Your task to perform on an android device: turn on airplane mode Image 0: 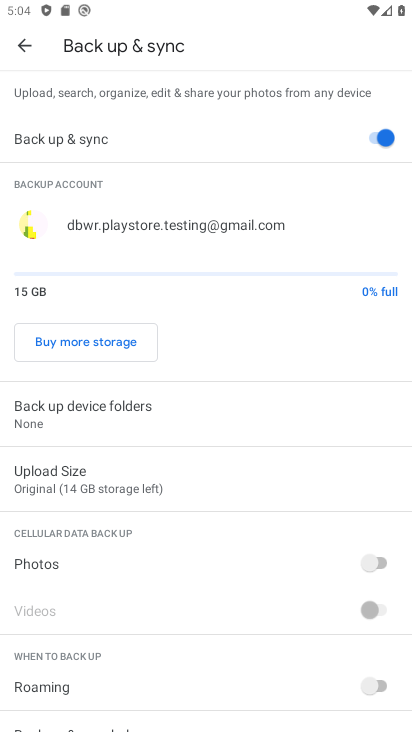
Step 0: press home button
Your task to perform on an android device: turn on airplane mode Image 1: 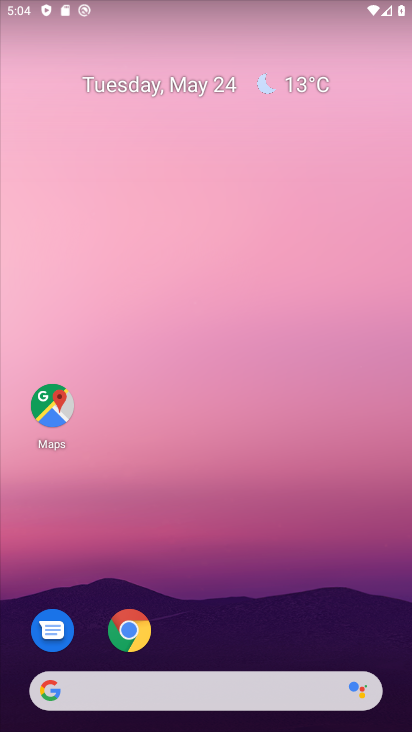
Step 1: click (131, 632)
Your task to perform on an android device: turn on airplane mode Image 2: 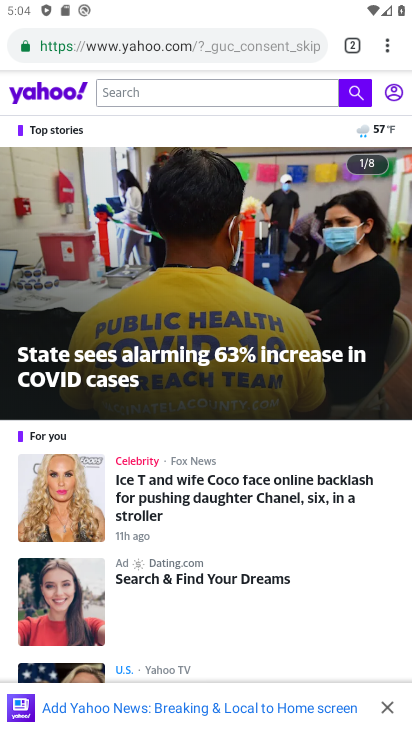
Step 2: press home button
Your task to perform on an android device: turn on airplane mode Image 3: 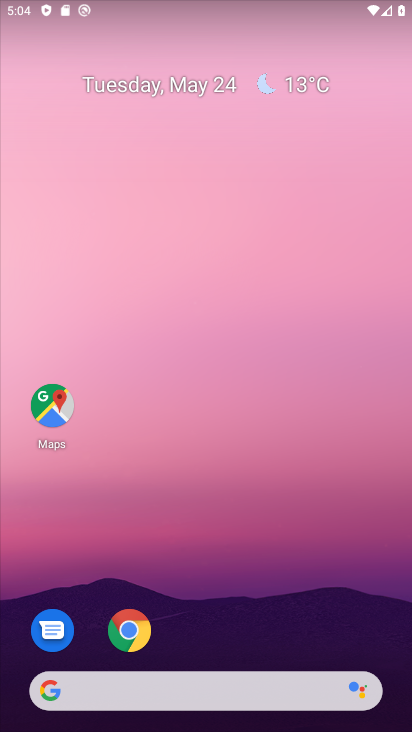
Step 3: drag from (220, 370) to (190, 2)
Your task to perform on an android device: turn on airplane mode Image 4: 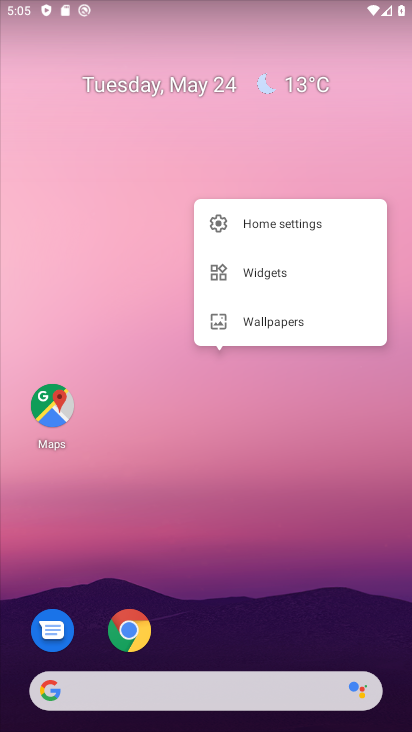
Step 4: click (241, 451)
Your task to perform on an android device: turn on airplane mode Image 5: 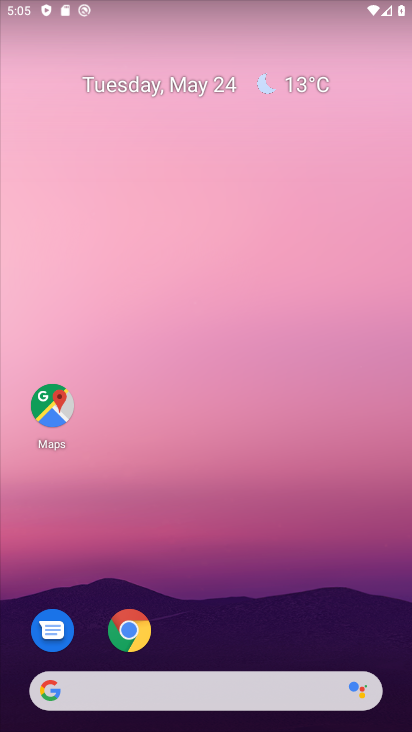
Step 5: click (200, 618)
Your task to perform on an android device: turn on airplane mode Image 6: 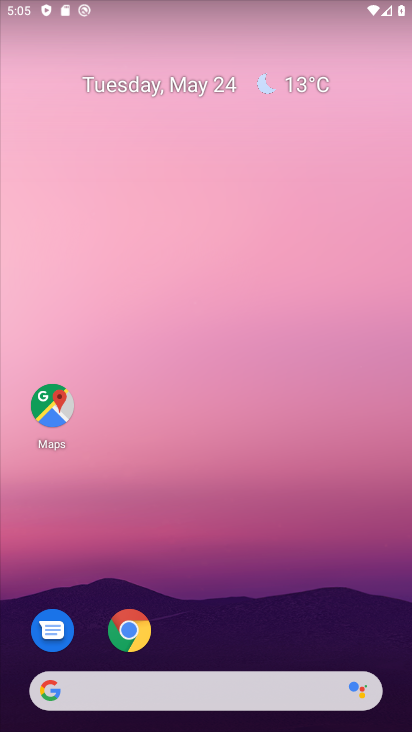
Step 6: click (271, 561)
Your task to perform on an android device: turn on airplane mode Image 7: 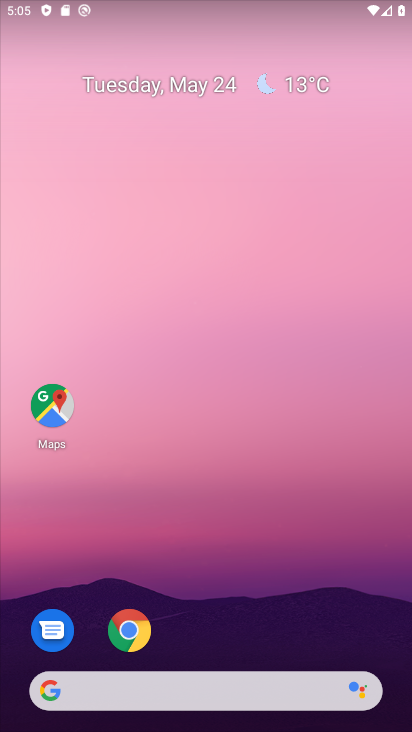
Step 7: click (271, 596)
Your task to perform on an android device: turn on airplane mode Image 8: 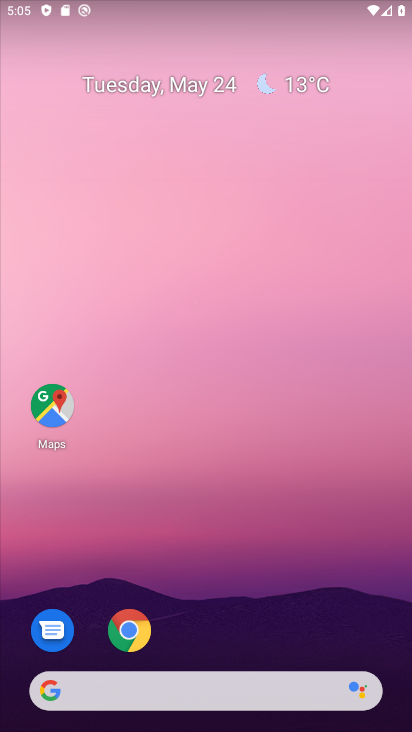
Step 8: click (209, 506)
Your task to perform on an android device: turn on airplane mode Image 9: 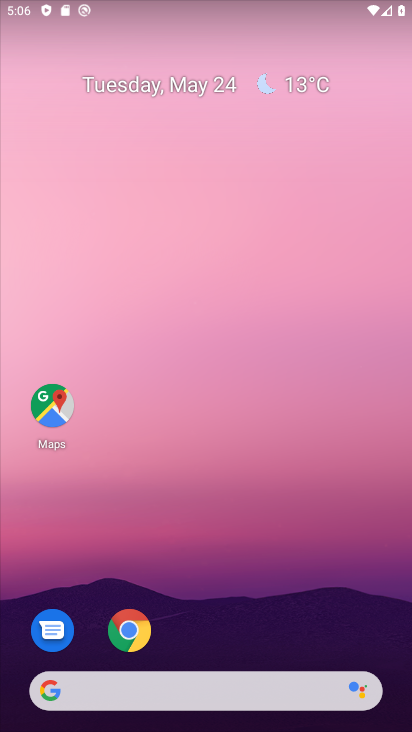
Step 9: click (119, 428)
Your task to perform on an android device: turn on airplane mode Image 10: 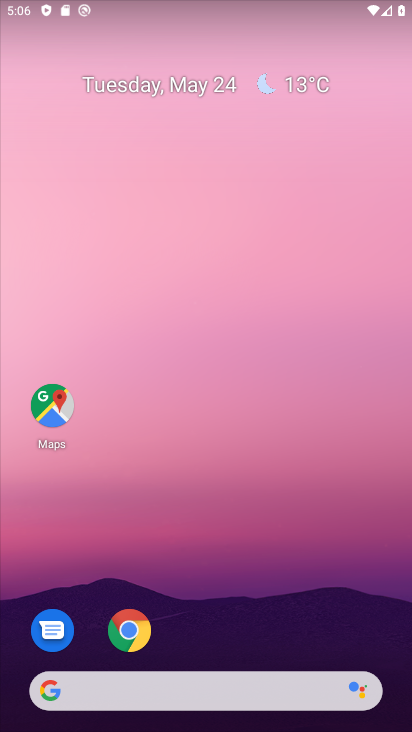
Step 10: click (141, 630)
Your task to perform on an android device: turn on airplane mode Image 11: 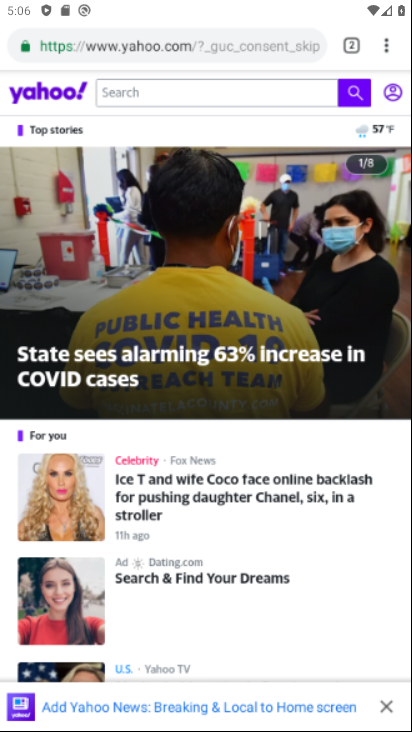
Step 11: click (203, 21)
Your task to perform on an android device: turn on airplane mode Image 12: 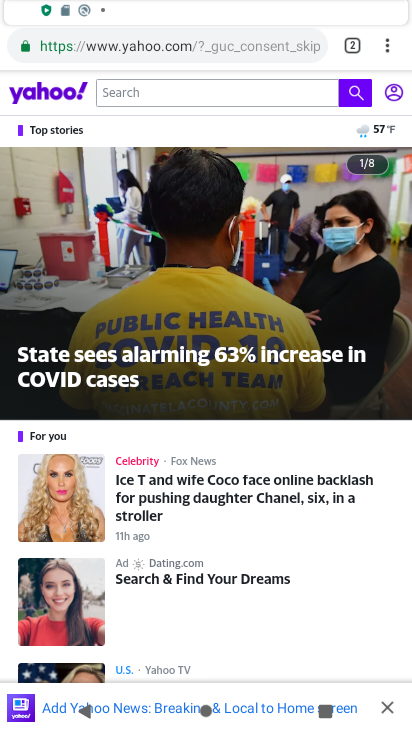
Step 12: click (170, 111)
Your task to perform on an android device: turn on airplane mode Image 13: 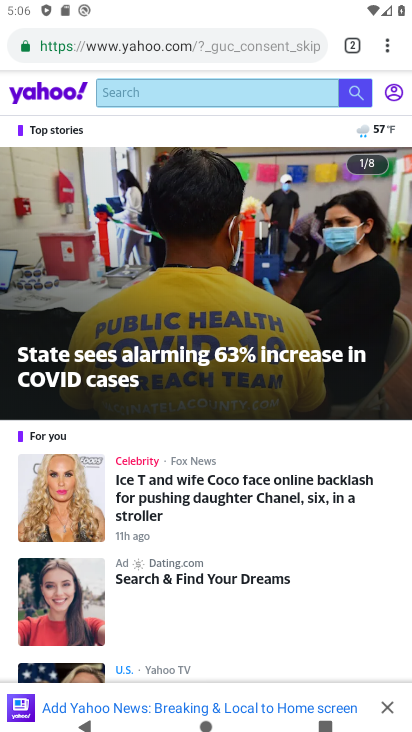
Step 13: drag from (195, 628) to (286, 13)
Your task to perform on an android device: turn on airplane mode Image 14: 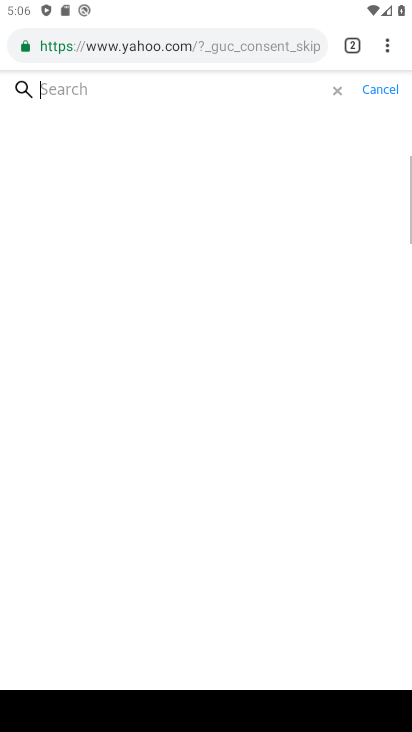
Step 14: click (149, 38)
Your task to perform on an android device: turn on airplane mode Image 15: 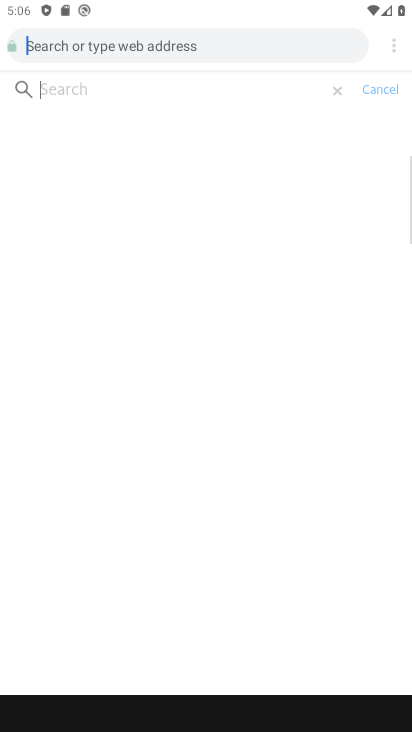
Step 15: click (204, 97)
Your task to perform on an android device: turn on airplane mode Image 16: 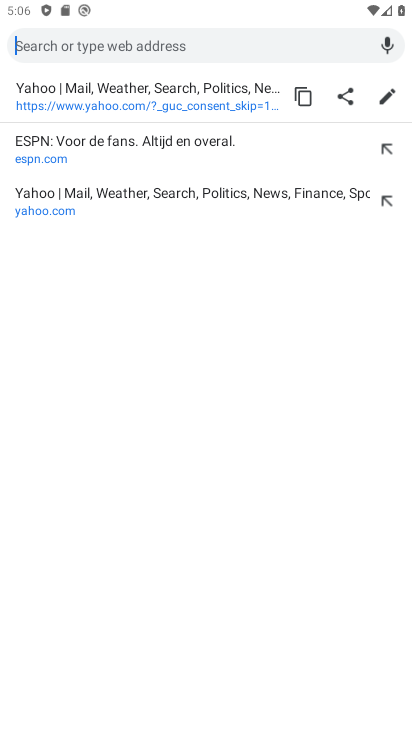
Step 16: press home button
Your task to perform on an android device: turn on airplane mode Image 17: 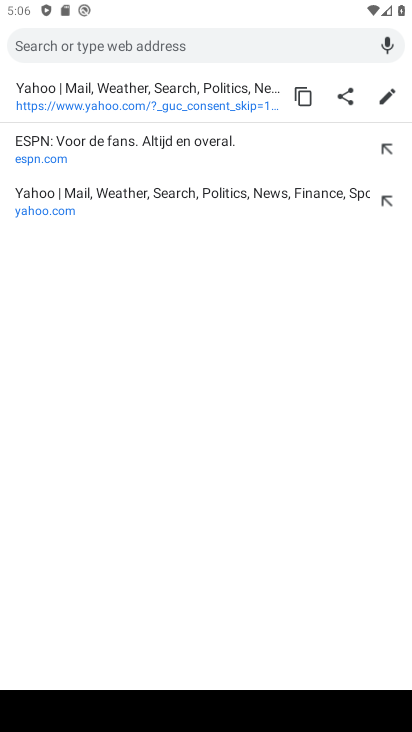
Step 17: press home button
Your task to perform on an android device: turn on airplane mode Image 18: 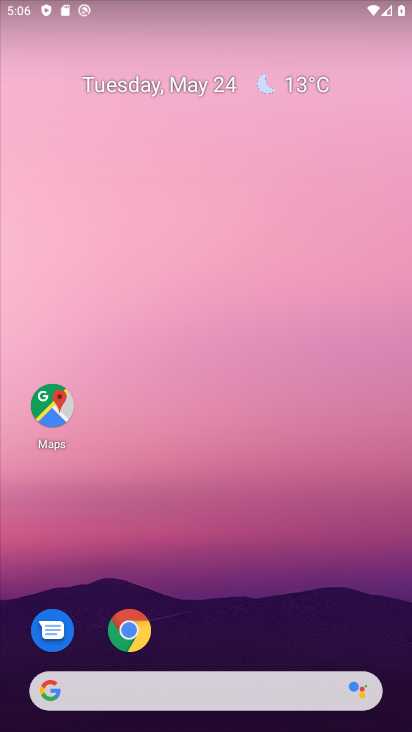
Step 18: drag from (173, 644) to (196, 117)
Your task to perform on an android device: turn on airplane mode Image 19: 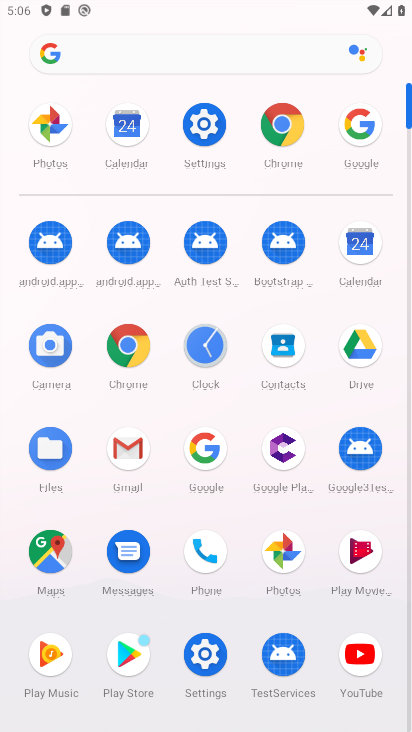
Step 19: click (207, 131)
Your task to perform on an android device: turn on airplane mode Image 20: 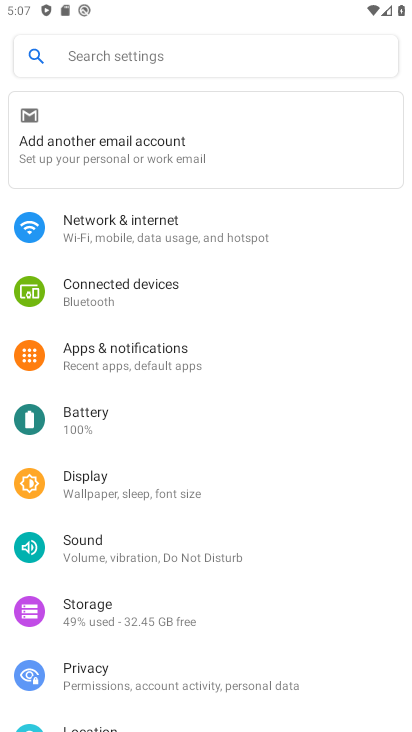
Step 20: drag from (141, 665) to (171, 359)
Your task to perform on an android device: turn on airplane mode Image 21: 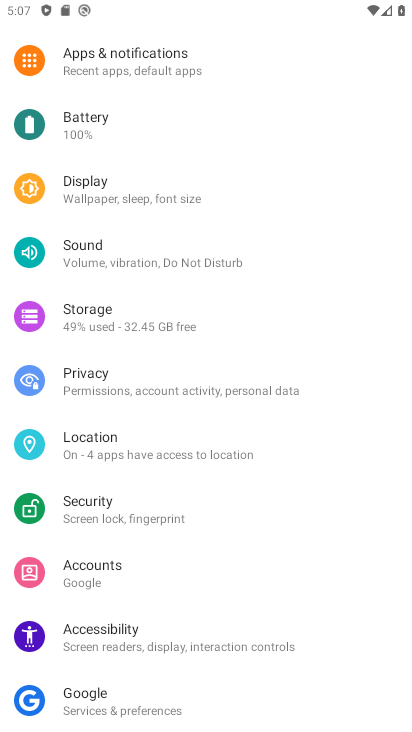
Step 21: drag from (182, 342) to (201, 703)
Your task to perform on an android device: turn on airplane mode Image 22: 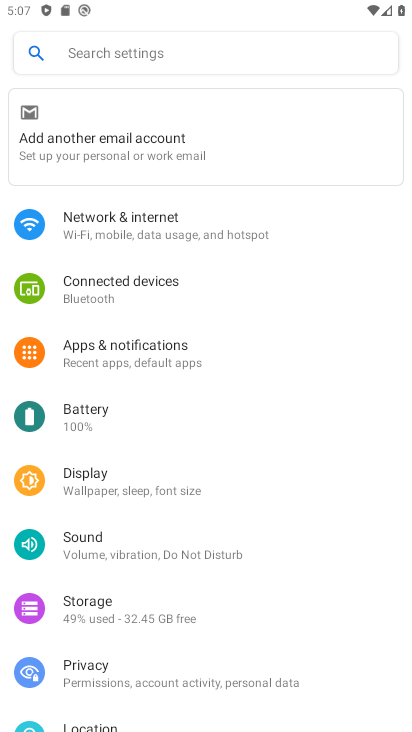
Step 22: click (134, 246)
Your task to perform on an android device: turn on airplane mode Image 23: 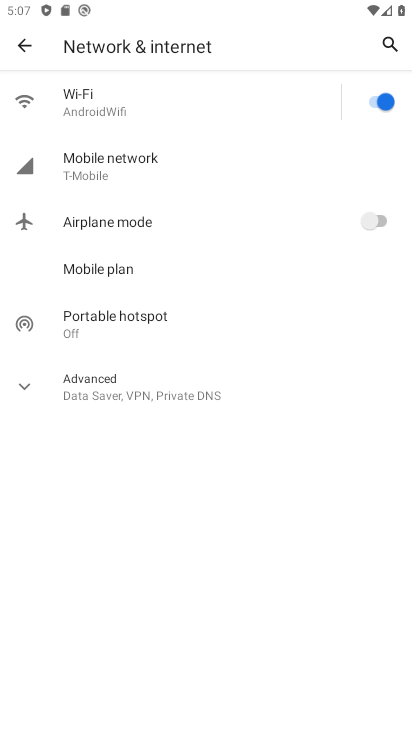
Step 23: click (380, 220)
Your task to perform on an android device: turn on airplane mode Image 24: 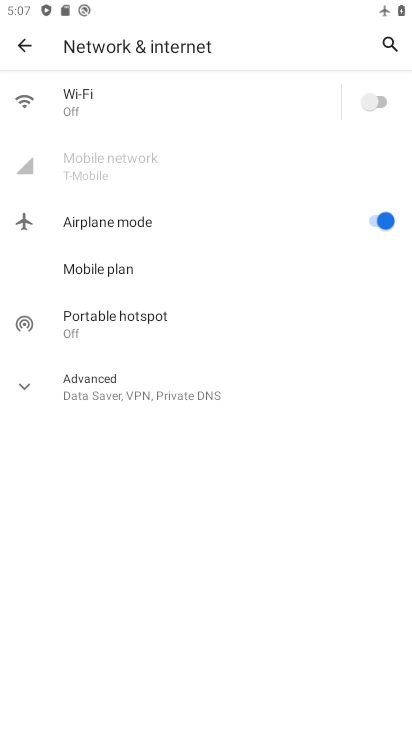
Step 24: task complete